Your task to perform on an android device: install app "AliExpress" Image 0: 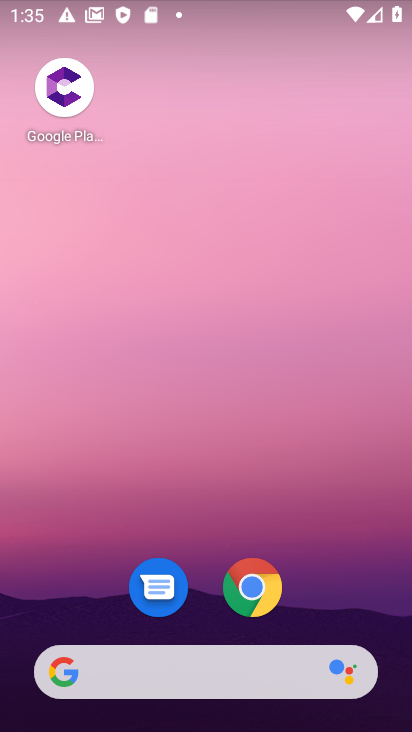
Step 0: drag from (198, 582) to (130, 152)
Your task to perform on an android device: install app "AliExpress" Image 1: 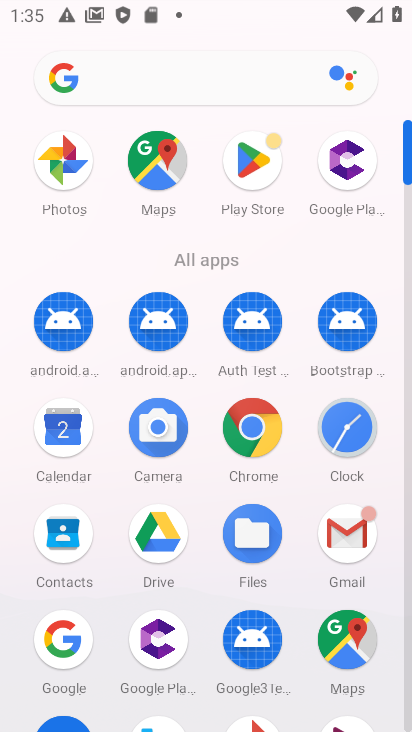
Step 1: click (248, 160)
Your task to perform on an android device: install app "AliExpress" Image 2: 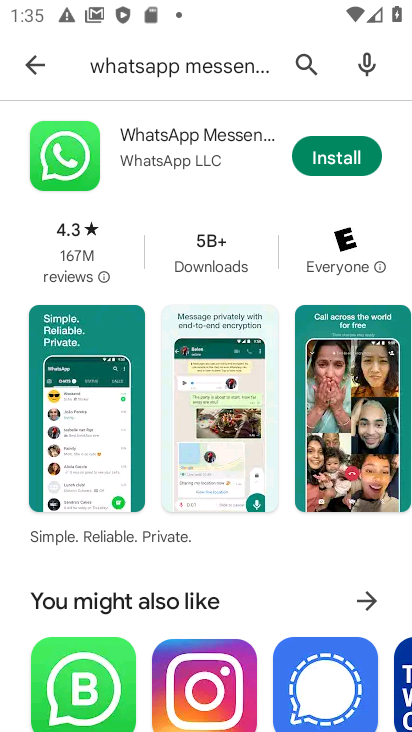
Step 2: click (294, 54)
Your task to perform on an android device: install app "AliExpress" Image 3: 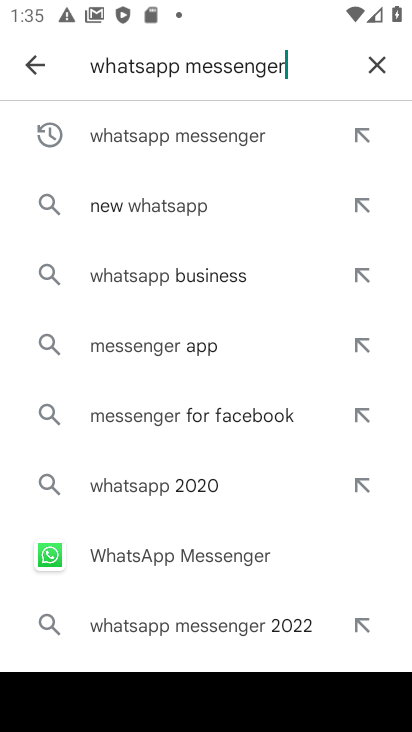
Step 3: click (379, 67)
Your task to perform on an android device: install app "AliExpress" Image 4: 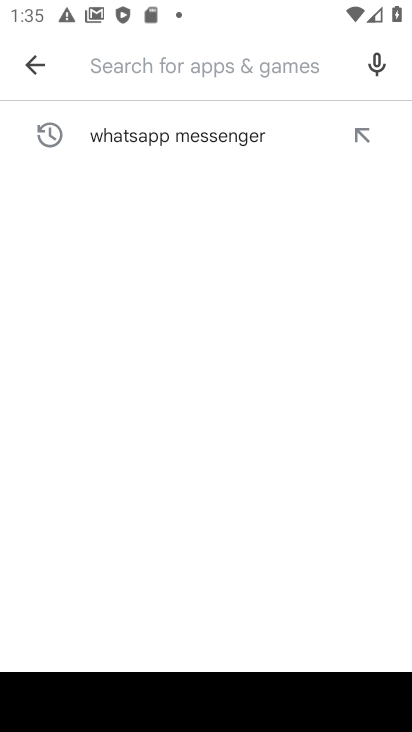
Step 4: type "AliExpress"
Your task to perform on an android device: install app "AliExpress" Image 5: 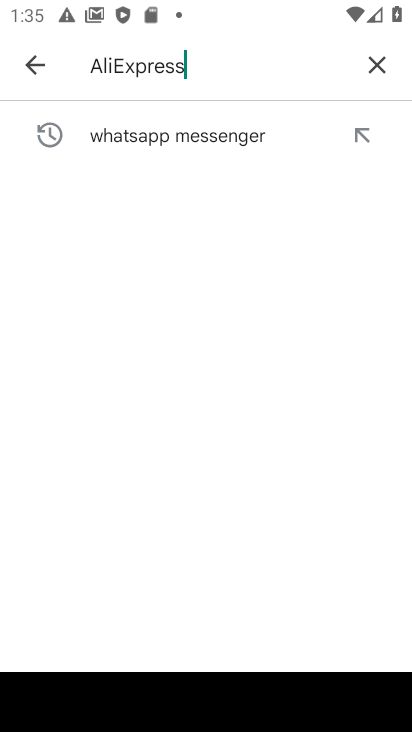
Step 5: type ""
Your task to perform on an android device: install app "AliExpress" Image 6: 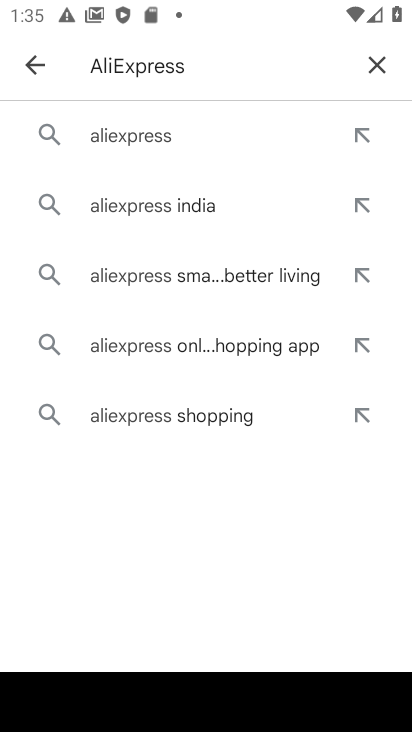
Step 6: click (157, 120)
Your task to perform on an android device: install app "AliExpress" Image 7: 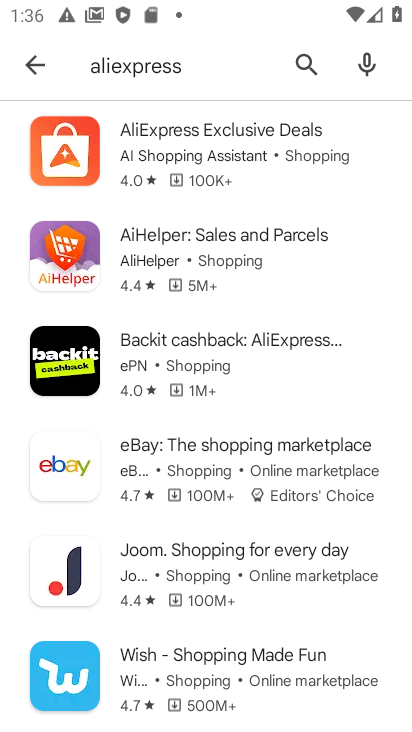
Step 7: click (178, 158)
Your task to perform on an android device: install app "AliExpress" Image 8: 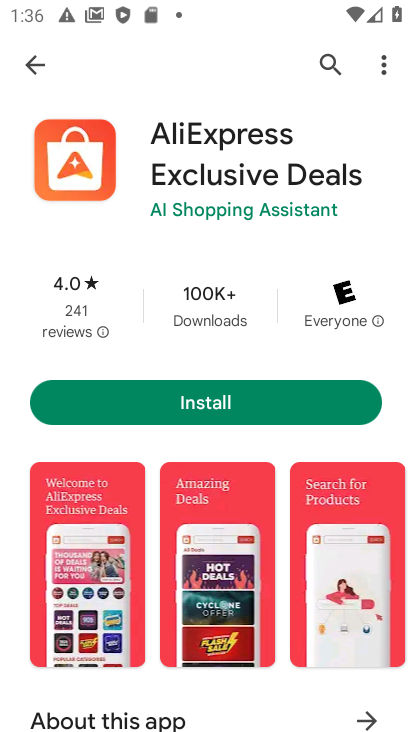
Step 8: click (251, 396)
Your task to perform on an android device: install app "AliExpress" Image 9: 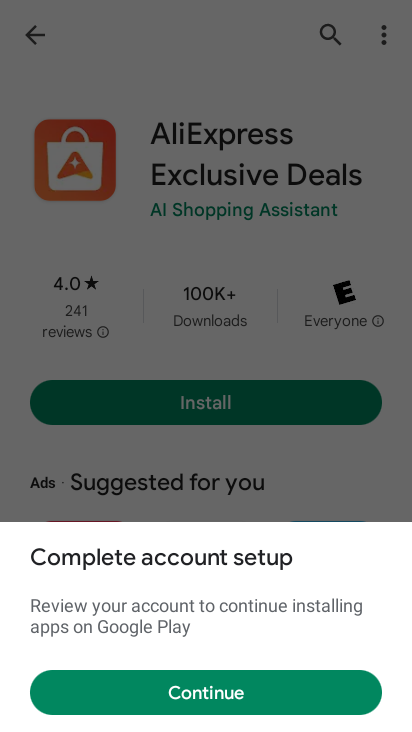
Step 9: click (239, 689)
Your task to perform on an android device: install app "AliExpress" Image 10: 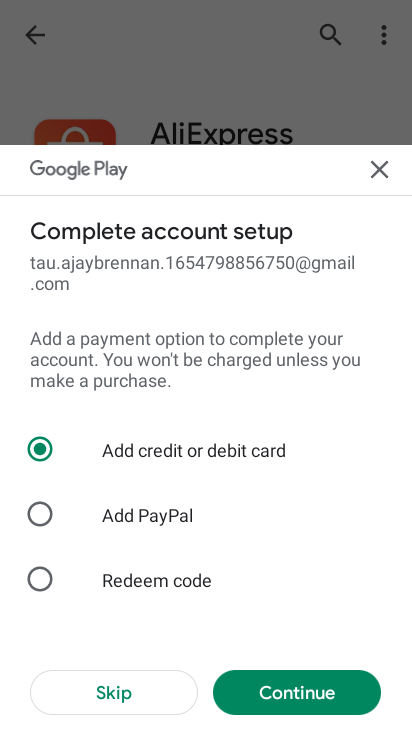
Step 10: click (96, 684)
Your task to perform on an android device: install app "AliExpress" Image 11: 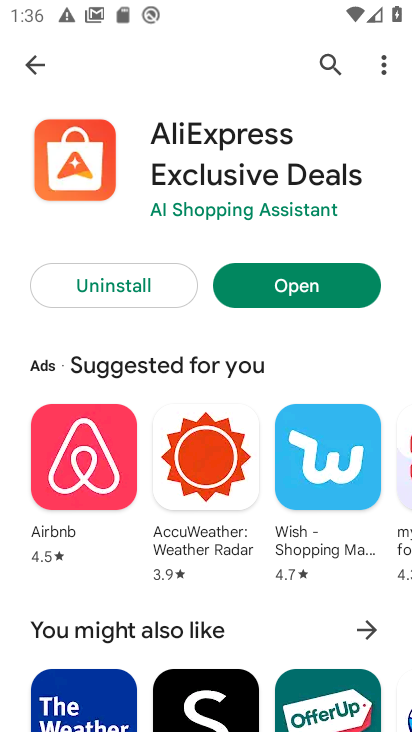
Step 11: task complete